Your task to perform on an android device: move an email to a new category in the gmail app Image 0: 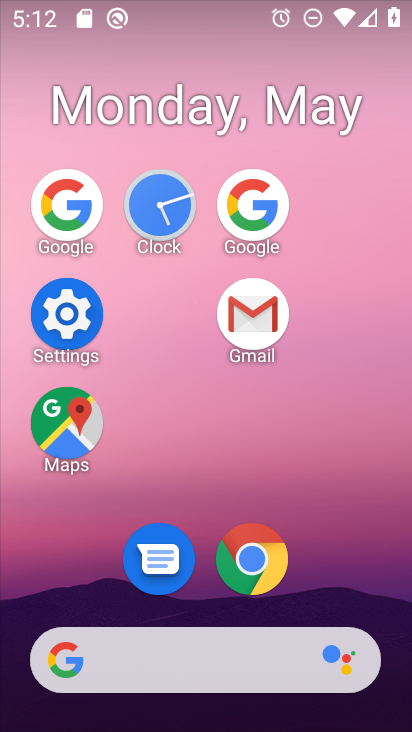
Step 0: click (266, 329)
Your task to perform on an android device: move an email to a new category in the gmail app Image 1: 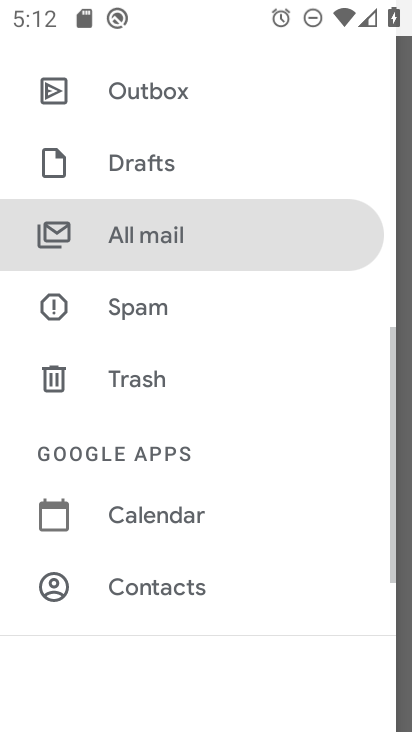
Step 1: click (182, 247)
Your task to perform on an android device: move an email to a new category in the gmail app Image 2: 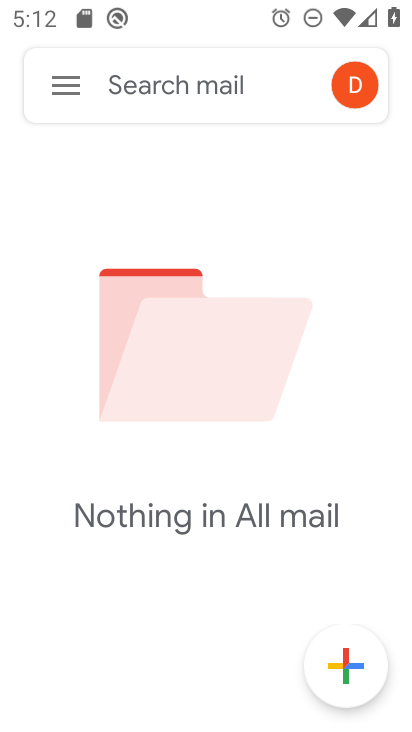
Step 2: task complete